Your task to perform on an android device: delete the emails in spam in the gmail app Image 0: 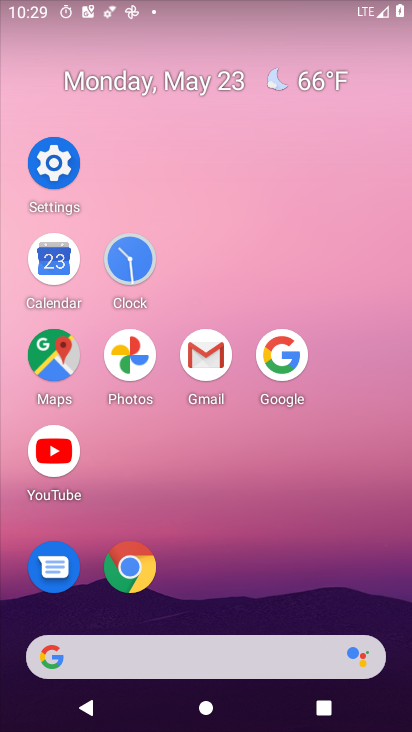
Step 0: click (226, 352)
Your task to perform on an android device: delete the emails in spam in the gmail app Image 1: 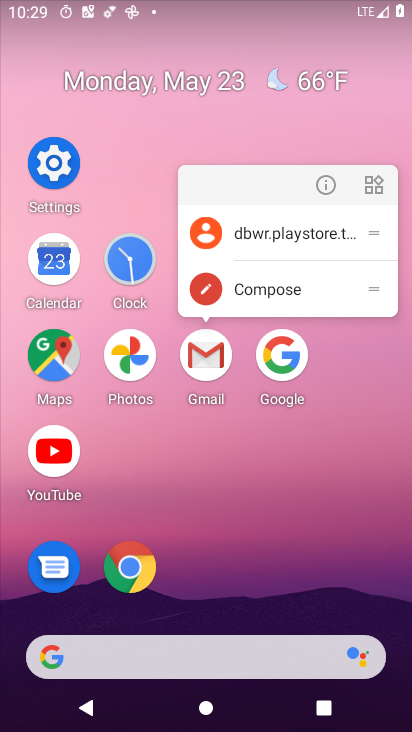
Step 1: click (208, 373)
Your task to perform on an android device: delete the emails in spam in the gmail app Image 2: 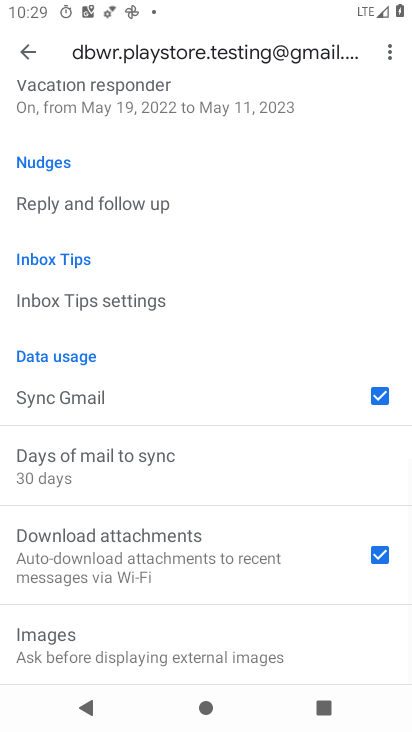
Step 2: click (26, 44)
Your task to perform on an android device: delete the emails in spam in the gmail app Image 3: 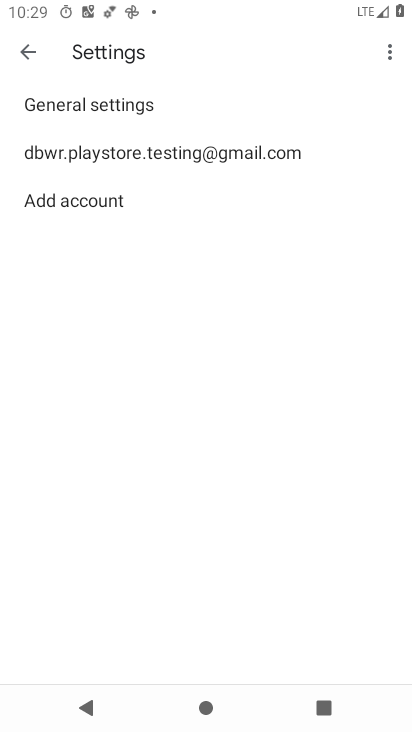
Step 3: click (29, 64)
Your task to perform on an android device: delete the emails in spam in the gmail app Image 4: 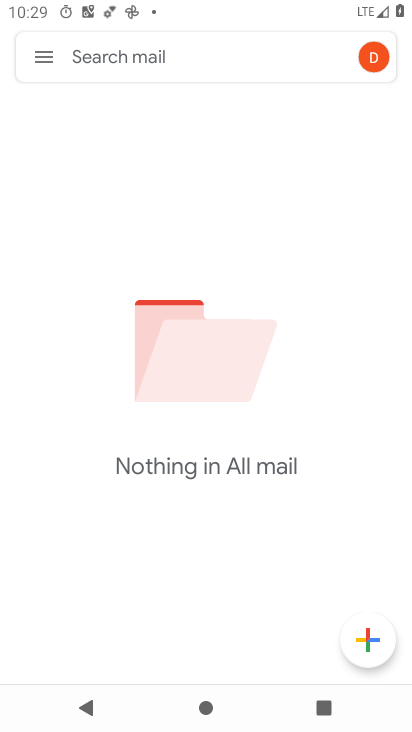
Step 4: click (47, 50)
Your task to perform on an android device: delete the emails in spam in the gmail app Image 5: 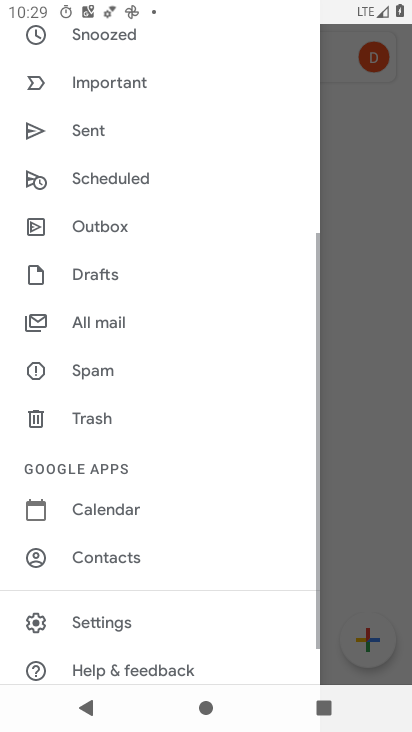
Step 5: click (223, 180)
Your task to perform on an android device: delete the emails in spam in the gmail app Image 6: 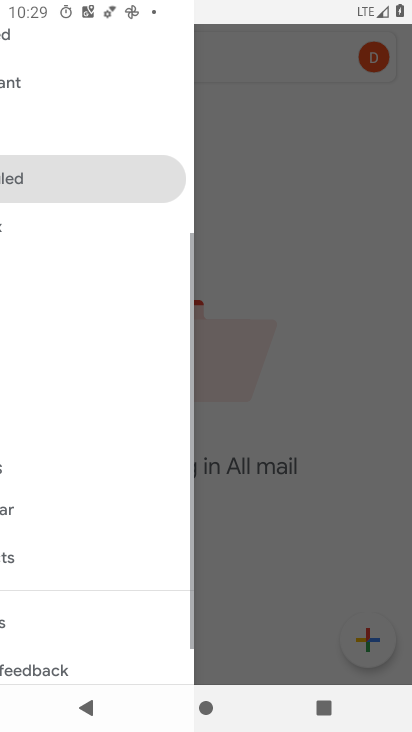
Step 6: drag from (166, 601) to (242, 159)
Your task to perform on an android device: delete the emails in spam in the gmail app Image 7: 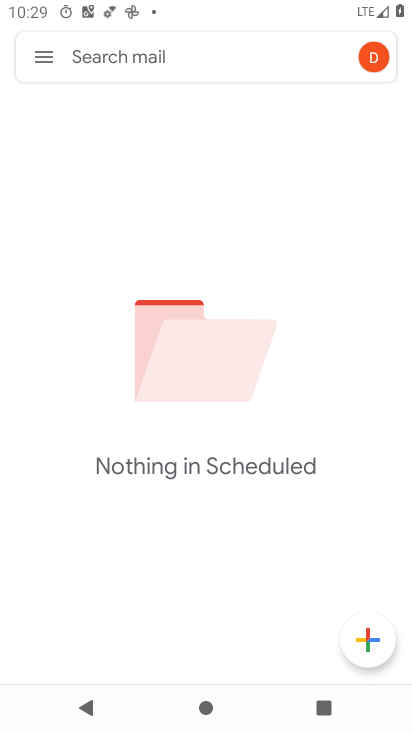
Step 7: click (44, 58)
Your task to perform on an android device: delete the emails in spam in the gmail app Image 8: 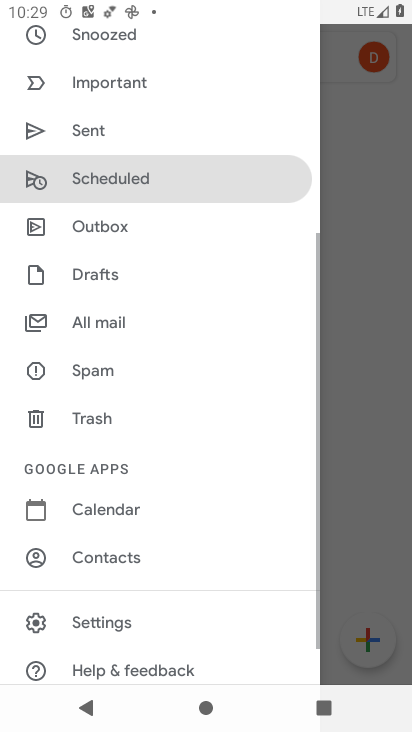
Step 8: click (114, 325)
Your task to perform on an android device: delete the emails in spam in the gmail app Image 9: 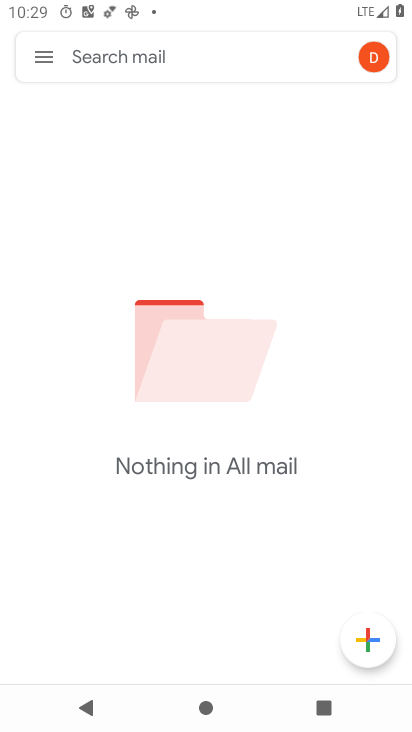
Step 9: task complete